Your task to perform on an android device: Open wifi settings Image 0: 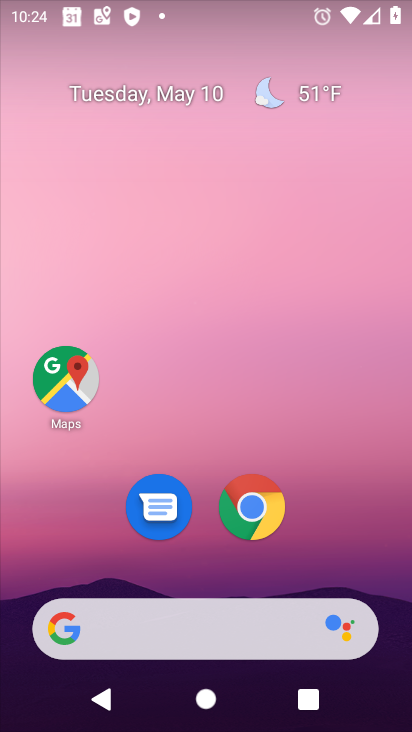
Step 0: drag from (170, 22) to (195, 450)
Your task to perform on an android device: Open wifi settings Image 1: 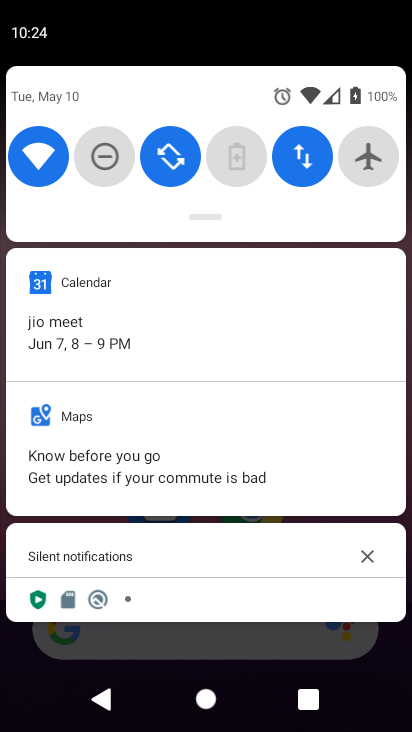
Step 1: click (38, 169)
Your task to perform on an android device: Open wifi settings Image 2: 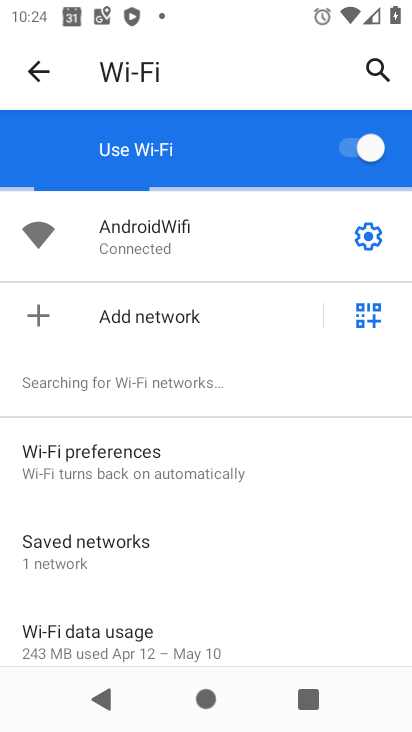
Step 2: task complete